Your task to perform on an android device: What is the recent news? Image 0: 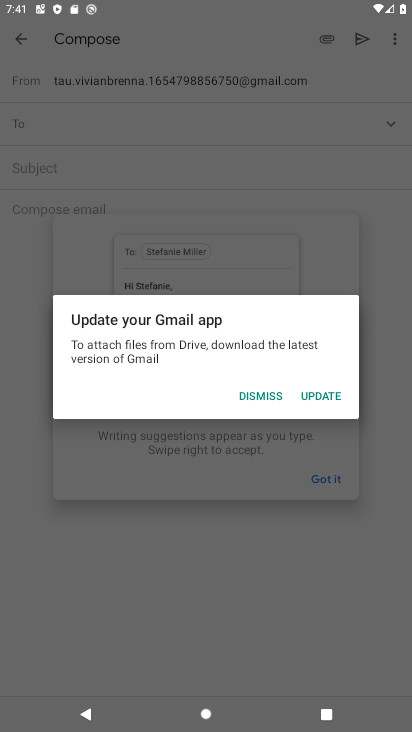
Step 0: press home button
Your task to perform on an android device: What is the recent news? Image 1: 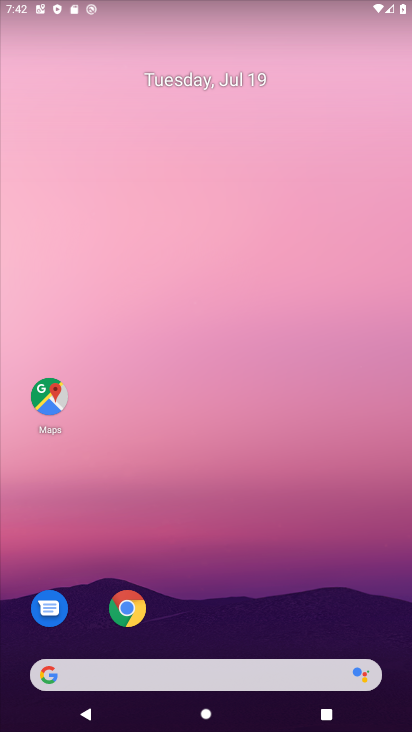
Step 1: click (178, 672)
Your task to perform on an android device: What is the recent news? Image 2: 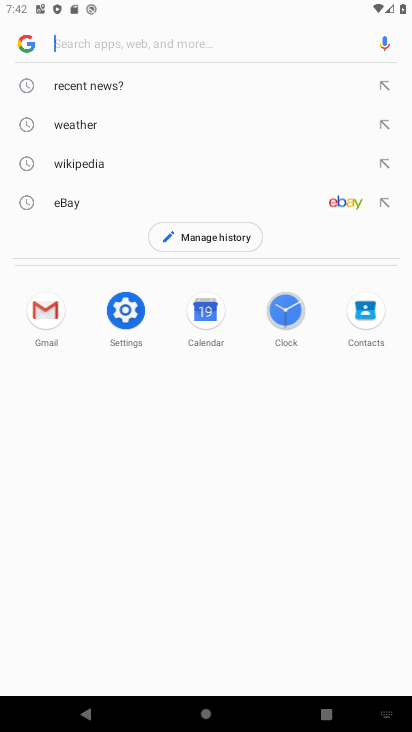
Step 2: click (81, 89)
Your task to perform on an android device: What is the recent news? Image 3: 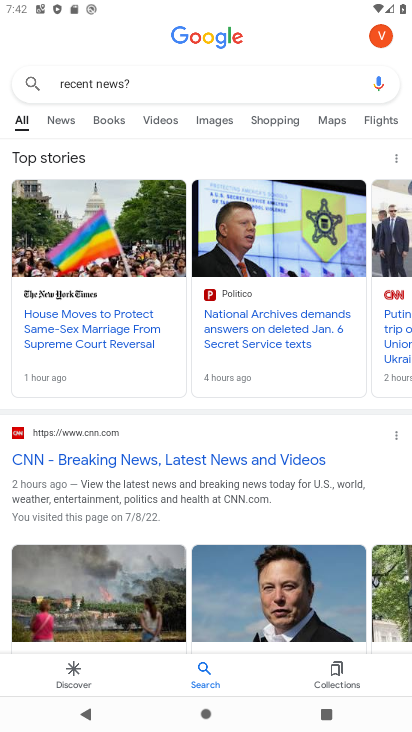
Step 3: click (62, 116)
Your task to perform on an android device: What is the recent news? Image 4: 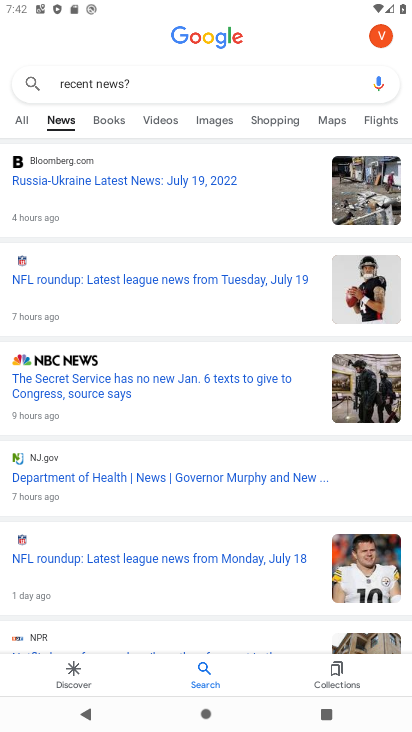
Step 4: task complete